Your task to perform on an android device: install app "HBO Max: Stream TV & Movies" Image 0: 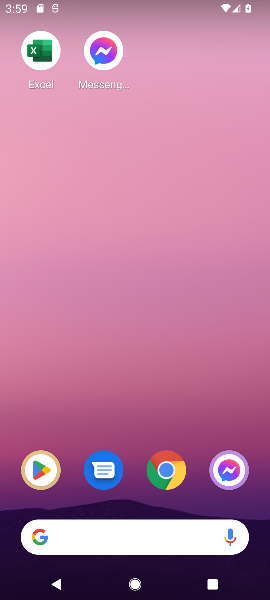
Step 0: click (37, 461)
Your task to perform on an android device: install app "HBO Max: Stream TV & Movies" Image 1: 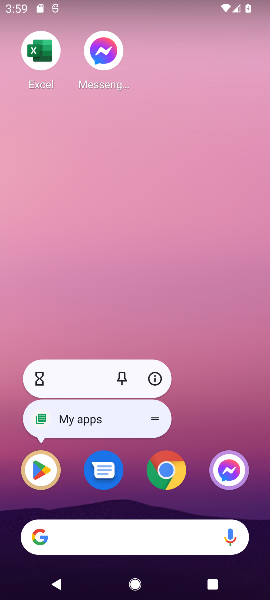
Step 1: click (37, 461)
Your task to perform on an android device: install app "HBO Max: Stream TV & Movies" Image 2: 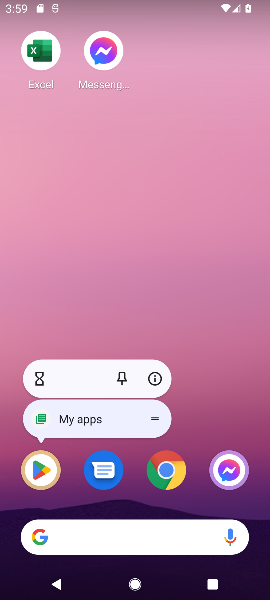
Step 2: click (37, 461)
Your task to perform on an android device: install app "HBO Max: Stream TV & Movies" Image 3: 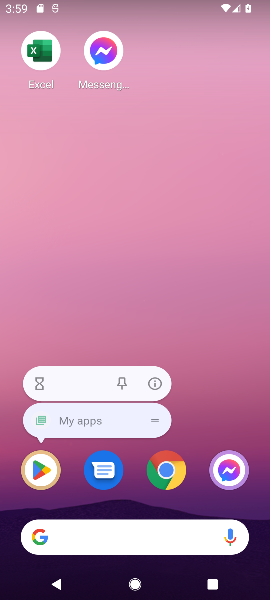
Step 3: click (37, 461)
Your task to perform on an android device: install app "HBO Max: Stream TV & Movies" Image 4: 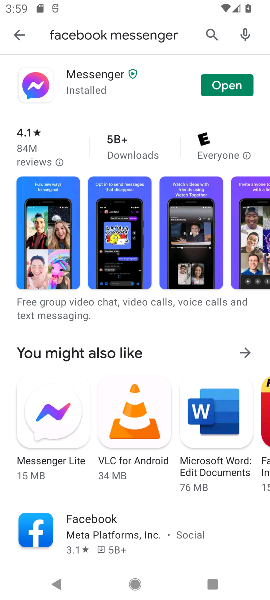
Step 4: click (210, 36)
Your task to perform on an android device: install app "HBO Max: Stream TV & Movies" Image 5: 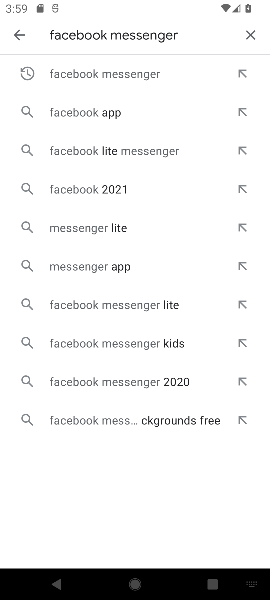
Step 5: click (248, 28)
Your task to perform on an android device: install app "HBO Max: Stream TV & Movies" Image 6: 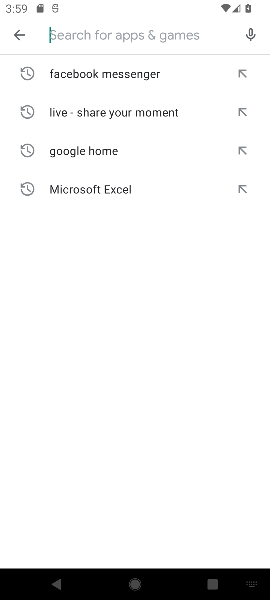
Step 6: type "HBO Max: Stream TV & Movies"
Your task to perform on an android device: install app "HBO Max: Stream TV & Movies" Image 7: 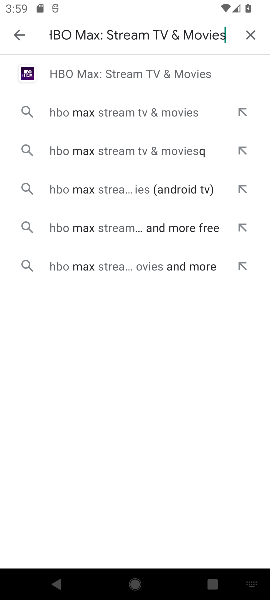
Step 7: click (134, 70)
Your task to perform on an android device: install app "HBO Max: Stream TV & Movies" Image 8: 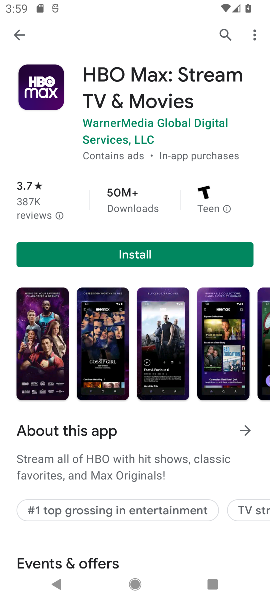
Step 8: click (181, 253)
Your task to perform on an android device: install app "HBO Max: Stream TV & Movies" Image 9: 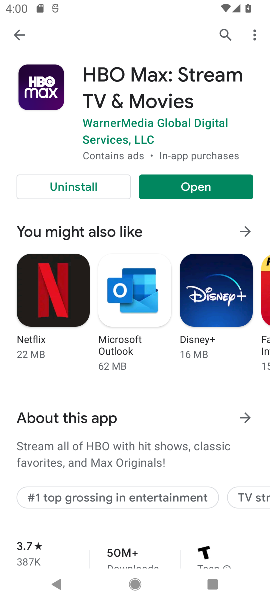
Step 9: task complete